Your task to perform on an android device: Open Yahoo.com Image 0: 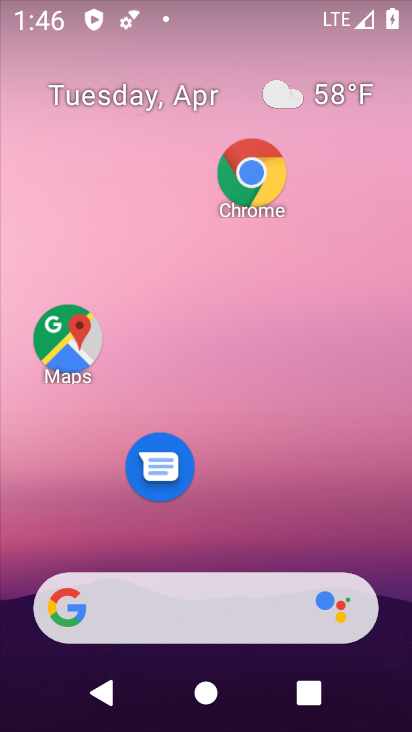
Step 0: drag from (264, 567) to (264, 76)
Your task to perform on an android device: Open Yahoo.com Image 1: 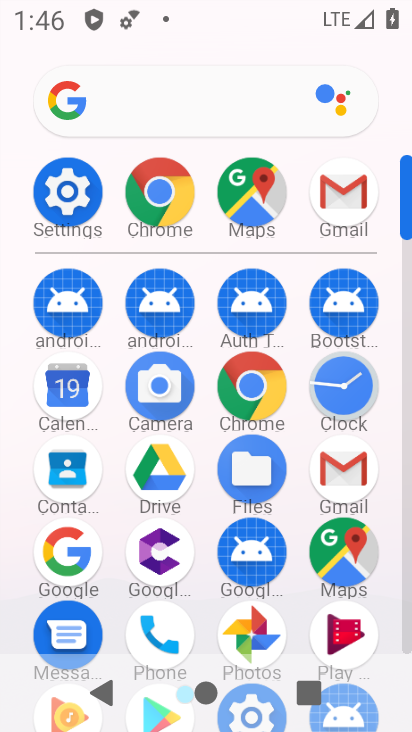
Step 1: click (249, 390)
Your task to perform on an android device: Open Yahoo.com Image 2: 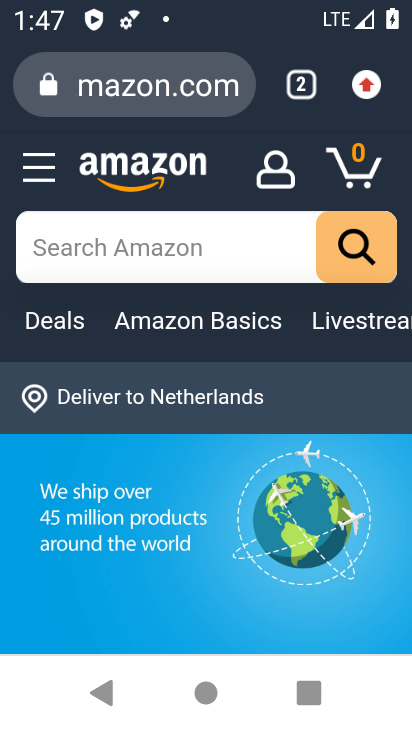
Step 2: click (379, 80)
Your task to perform on an android device: Open Yahoo.com Image 3: 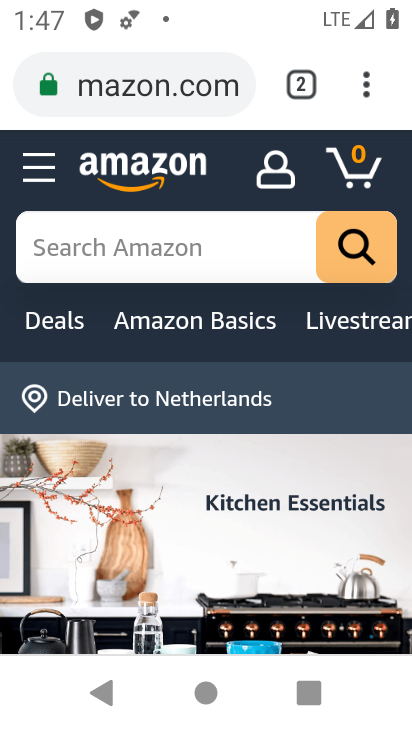
Step 3: press back button
Your task to perform on an android device: Open Yahoo.com Image 4: 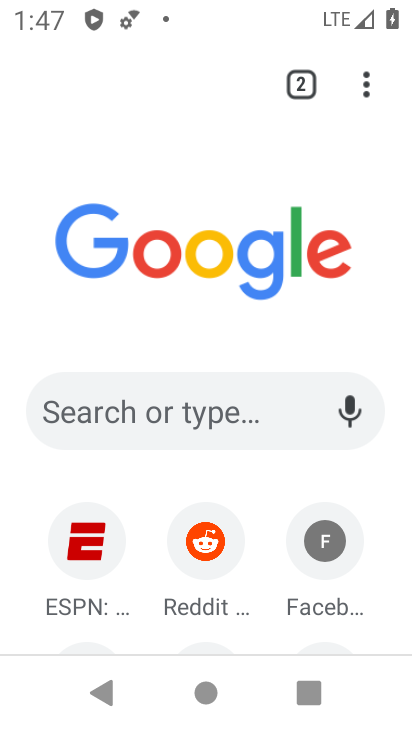
Step 4: drag from (223, 570) to (250, 295)
Your task to perform on an android device: Open Yahoo.com Image 5: 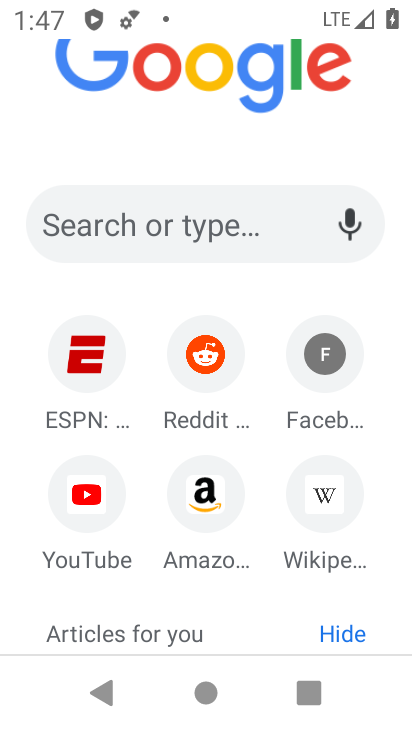
Step 5: drag from (300, 619) to (346, 381)
Your task to perform on an android device: Open Yahoo.com Image 6: 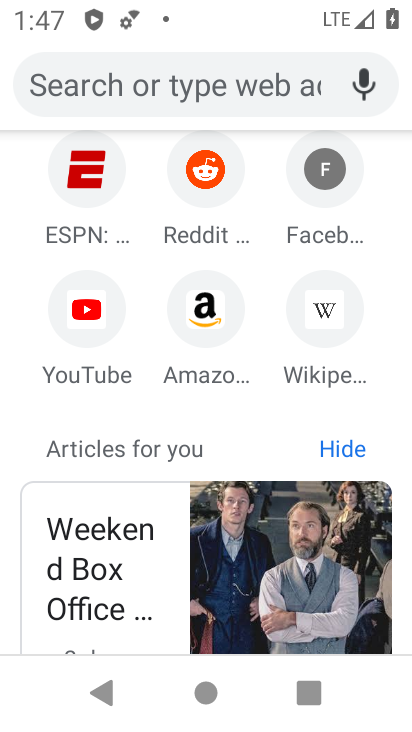
Step 6: drag from (278, 394) to (255, 681)
Your task to perform on an android device: Open Yahoo.com Image 7: 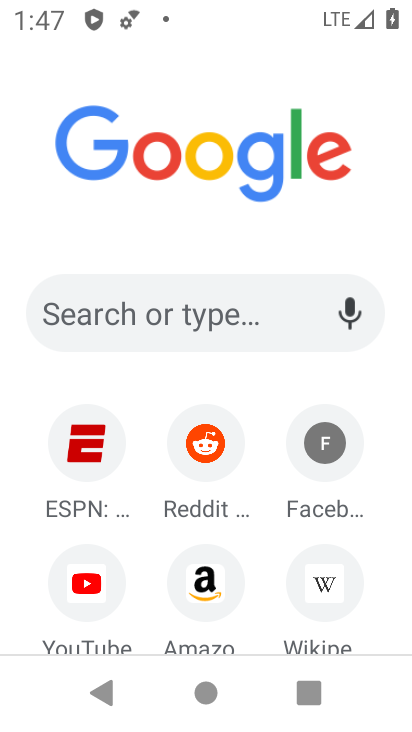
Step 7: drag from (258, 502) to (259, 645)
Your task to perform on an android device: Open Yahoo.com Image 8: 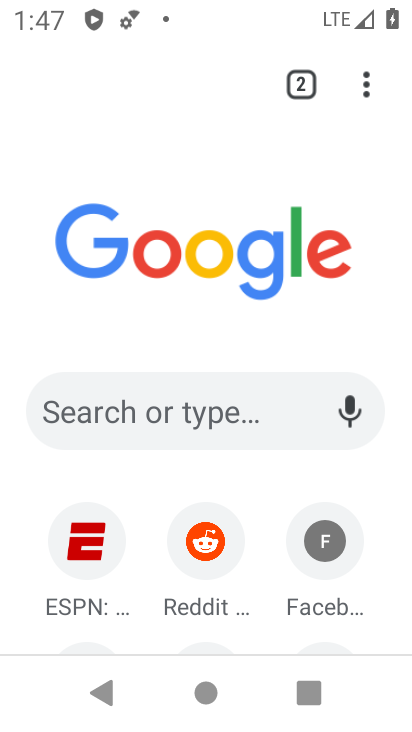
Step 8: drag from (338, 491) to (250, 397)
Your task to perform on an android device: Open Yahoo.com Image 9: 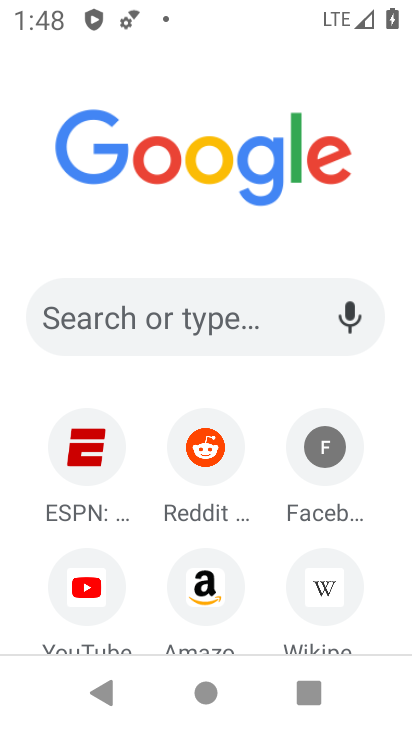
Step 9: drag from (178, 620) to (190, 326)
Your task to perform on an android device: Open Yahoo.com Image 10: 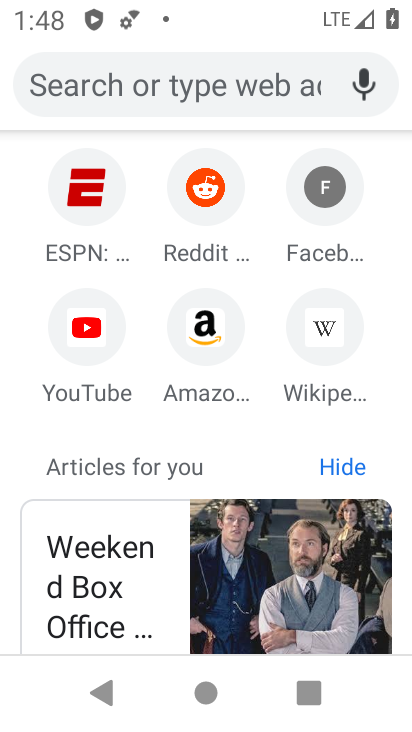
Step 10: click (231, 79)
Your task to perform on an android device: Open Yahoo.com Image 11: 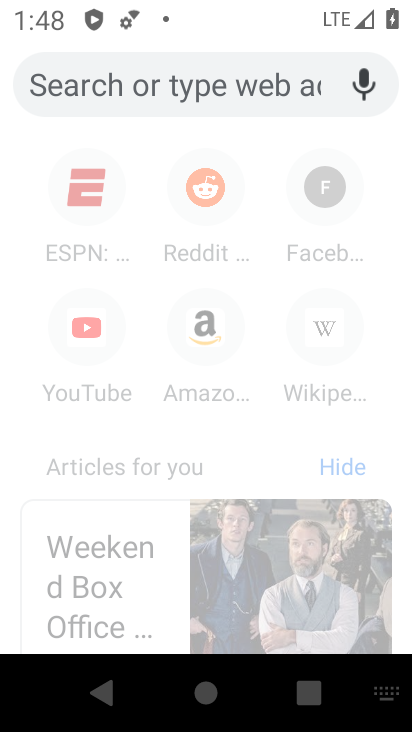
Step 11: type "yahoo"
Your task to perform on an android device: Open Yahoo.com Image 12: 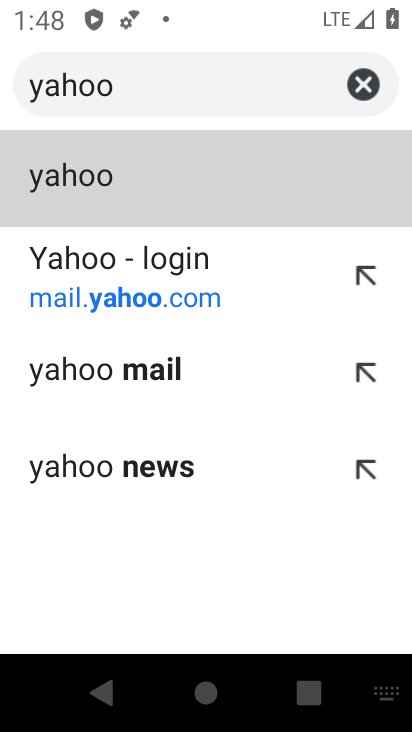
Step 12: click (153, 173)
Your task to perform on an android device: Open Yahoo.com Image 13: 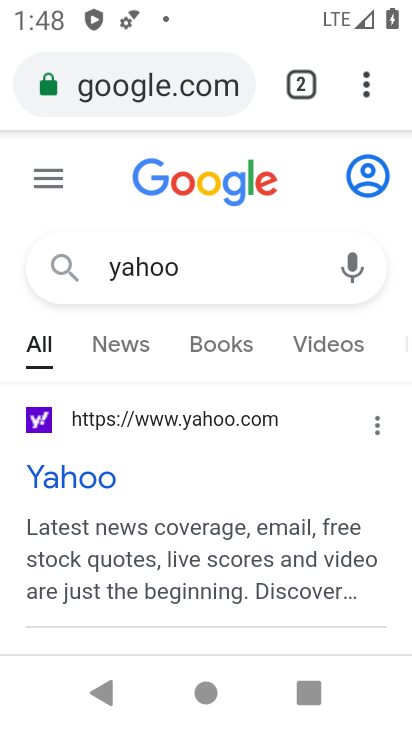
Step 13: task complete